Your task to perform on an android device: Go to Reddit.com Image 0: 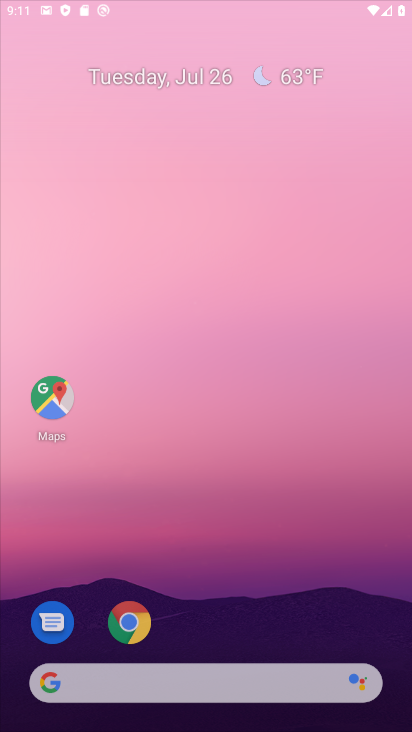
Step 0: press home button
Your task to perform on an android device: Go to Reddit.com Image 1: 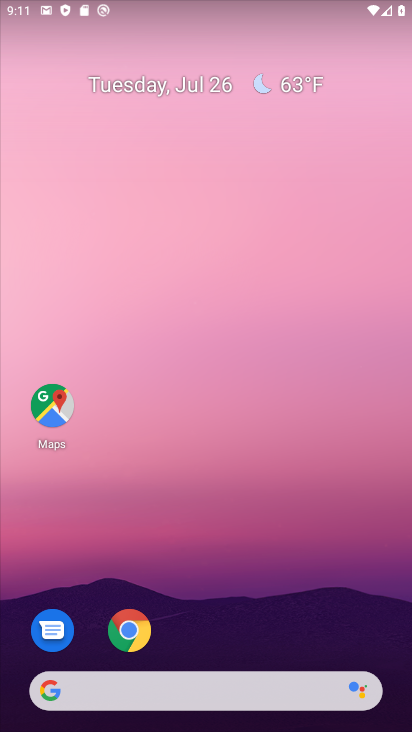
Step 1: click (126, 625)
Your task to perform on an android device: Go to Reddit.com Image 2: 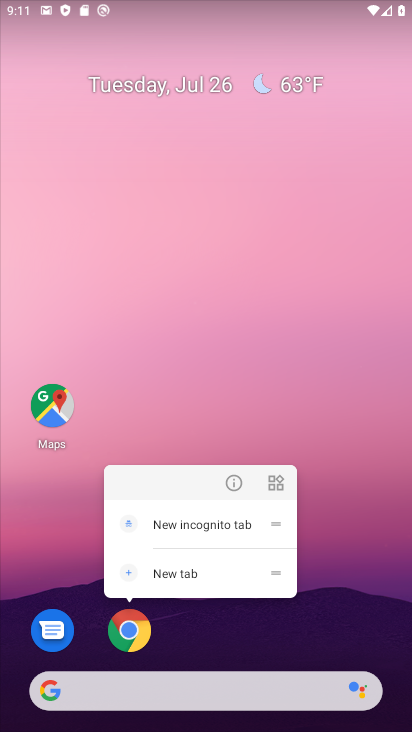
Step 2: click (126, 625)
Your task to perform on an android device: Go to Reddit.com Image 3: 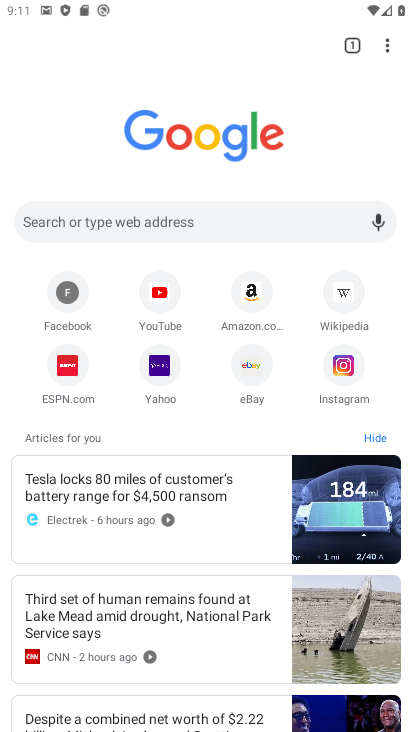
Step 3: click (136, 216)
Your task to perform on an android device: Go to Reddit.com Image 4: 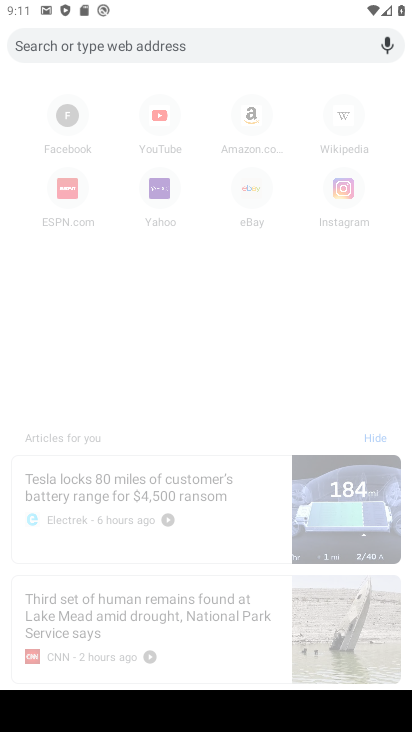
Step 4: type "reddit.com"
Your task to perform on an android device: Go to Reddit.com Image 5: 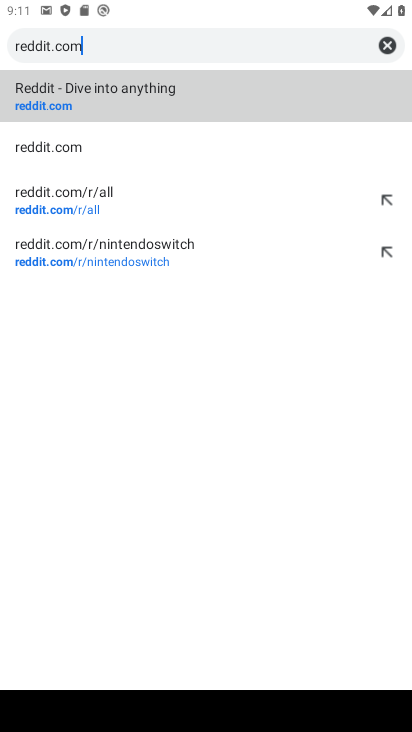
Step 5: click (86, 88)
Your task to perform on an android device: Go to Reddit.com Image 6: 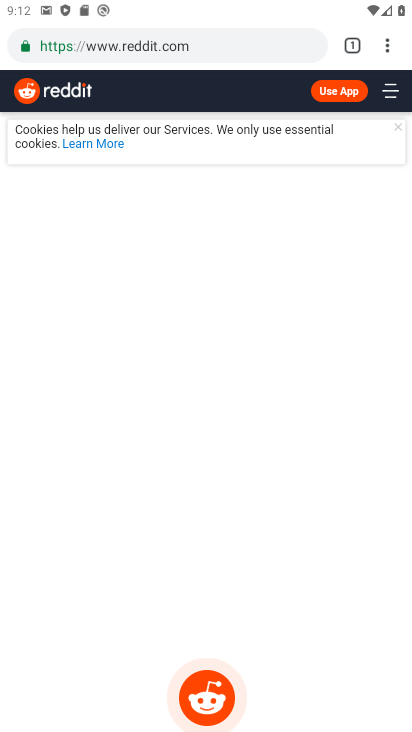
Step 6: task complete